Your task to perform on an android device: Open wifi settings Image 0: 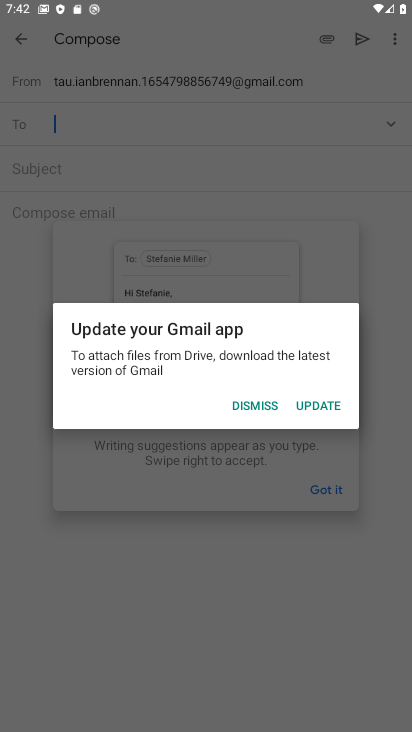
Step 0: press home button
Your task to perform on an android device: Open wifi settings Image 1: 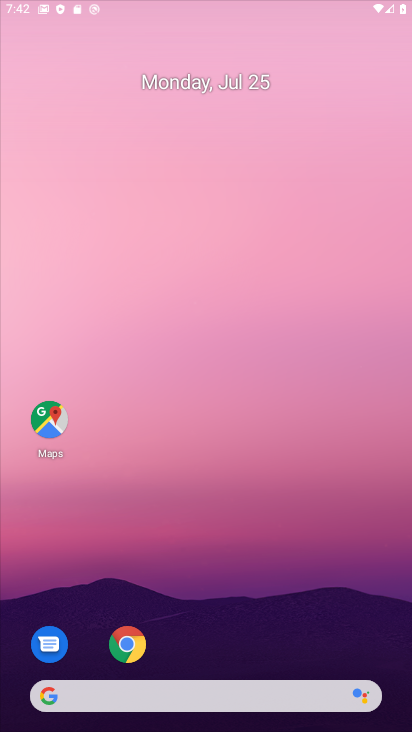
Step 1: drag from (235, 504) to (252, 0)
Your task to perform on an android device: Open wifi settings Image 2: 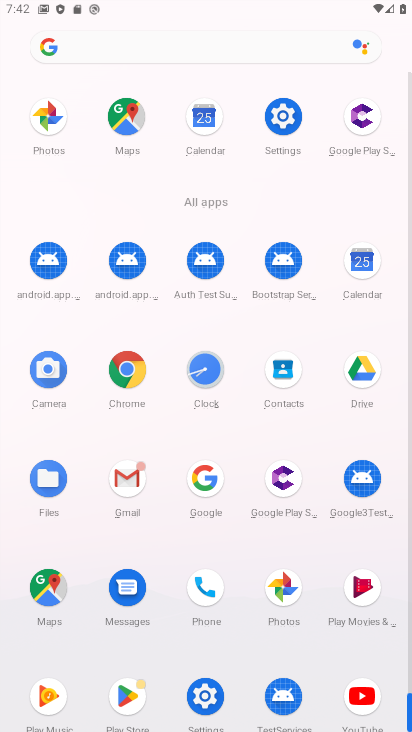
Step 2: click (279, 122)
Your task to perform on an android device: Open wifi settings Image 3: 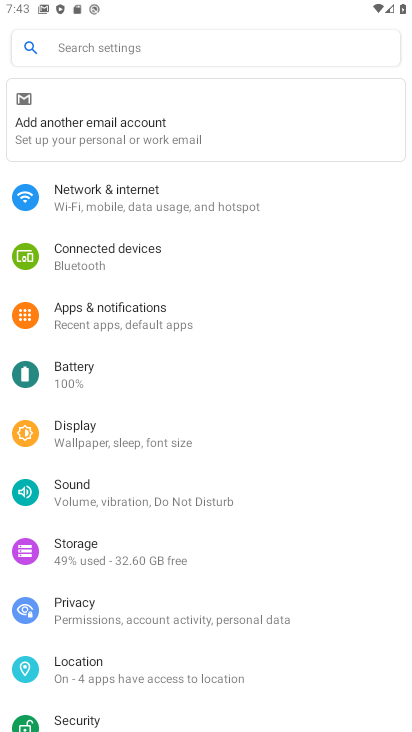
Step 3: click (192, 212)
Your task to perform on an android device: Open wifi settings Image 4: 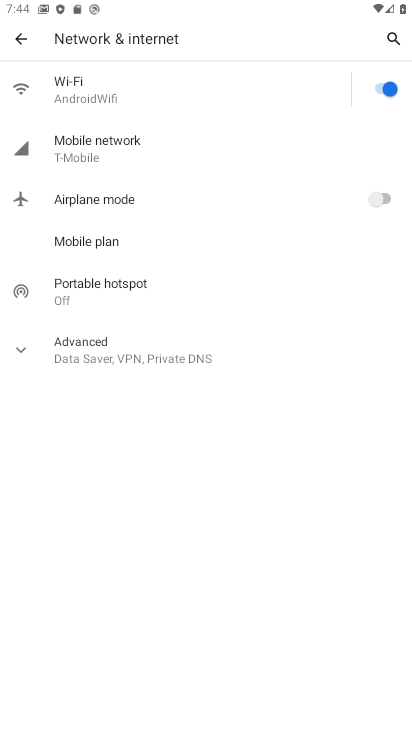
Step 4: click (165, 97)
Your task to perform on an android device: Open wifi settings Image 5: 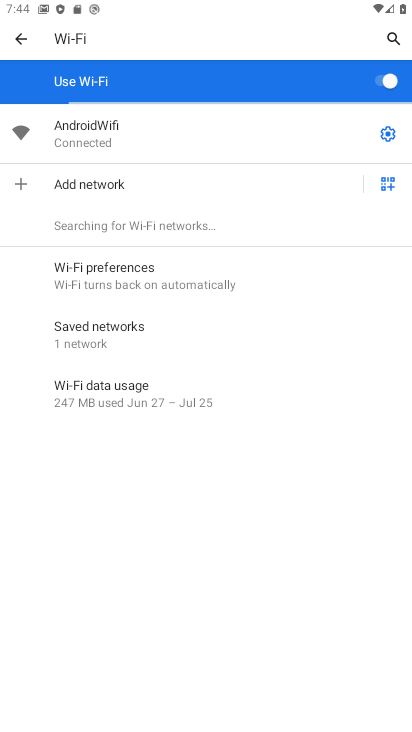
Step 5: task complete